Your task to perform on an android device: allow cookies in the chrome app Image 0: 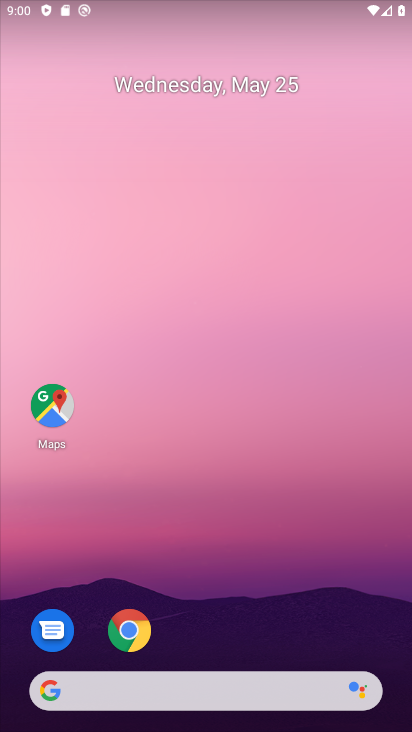
Step 0: click (123, 628)
Your task to perform on an android device: allow cookies in the chrome app Image 1: 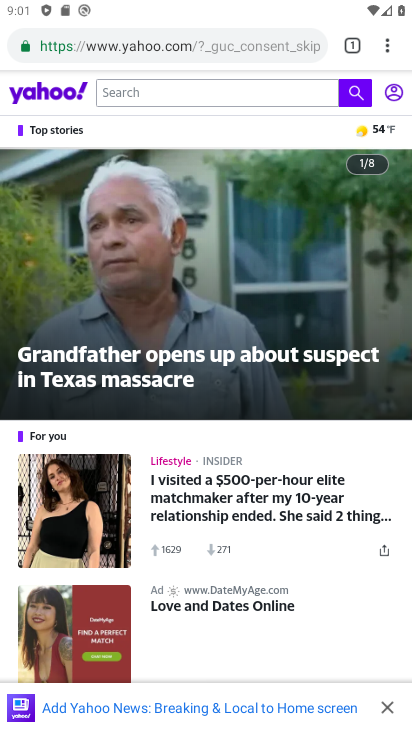
Step 1: click (388, 45)
Your task to perform on an android device: allow cookies in the chrome app Image 2: 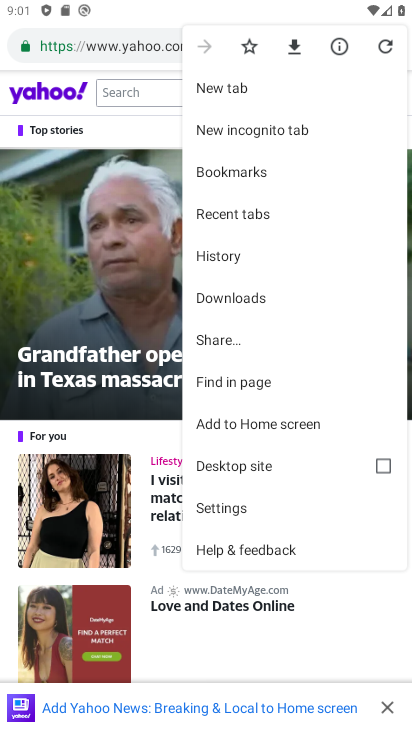
Step 2: click (238, 506)
Your task to perform on an android device: allow cookies in the chrome app Image 3: 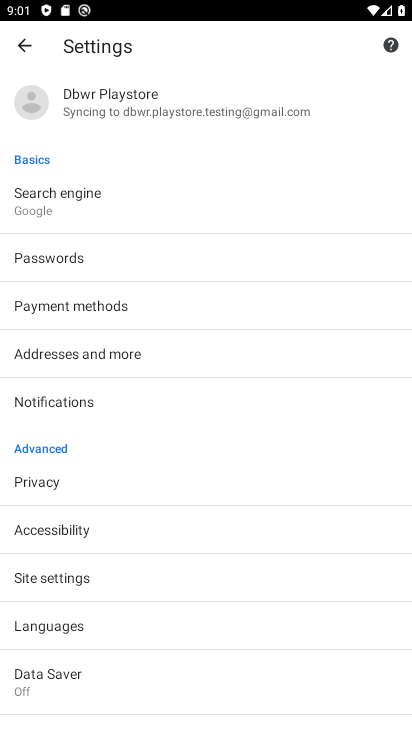
Step 3: click (99, 571)
Your task to perform on an android device: allow cookies in the chrome app Image 4: 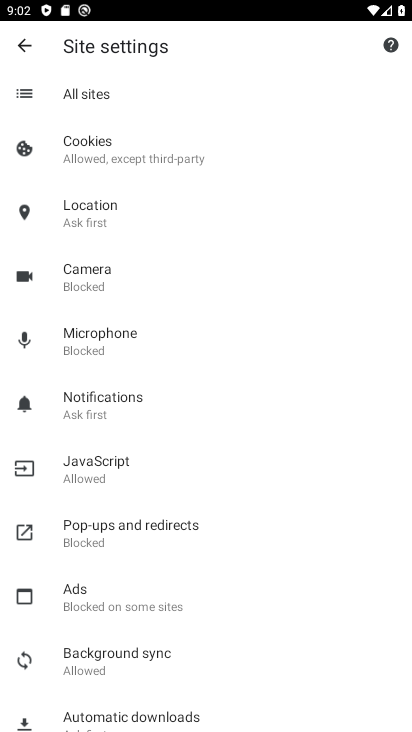
Step 4: click (192, 154)
Your task to perform on an android device: allow cookies in the chrome app Image 5: 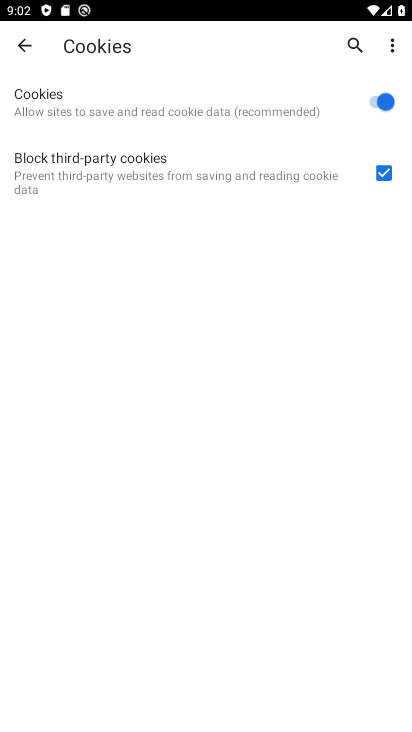
Step 5: task complete